Your task to perform on an android device: Open Google Chrome and open the bookmarks view Image 0: 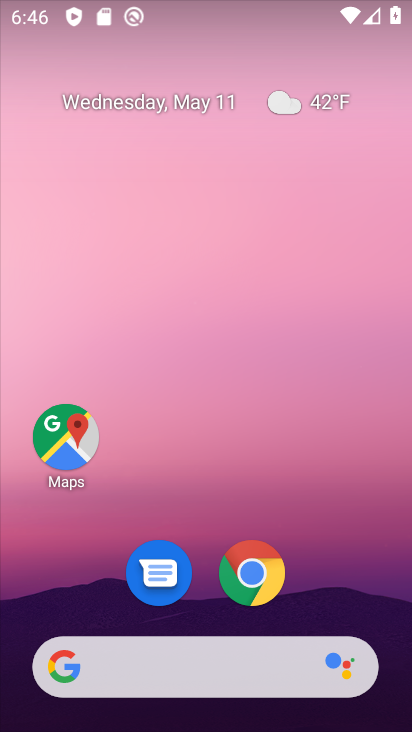
Step 0: drag from (314, 603) to (254, 282)
Your task to perform on an android device: Open Google Chrome and open the bookmarks view Image 1: 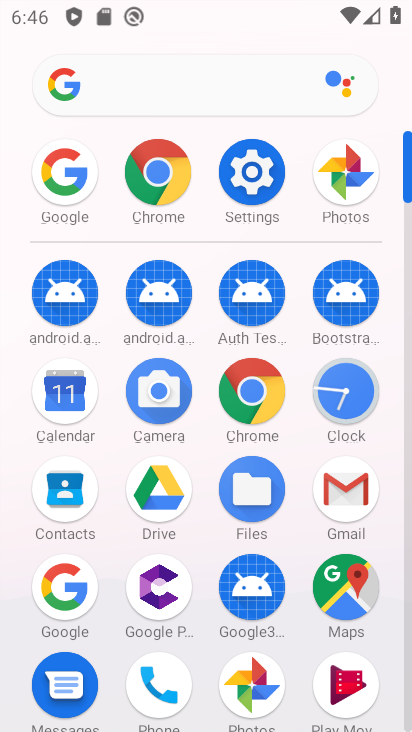
Step 1: click (251, 436)
Your task to perform on an android device: Open Google Chrome and open the bookmarks view Image 2: 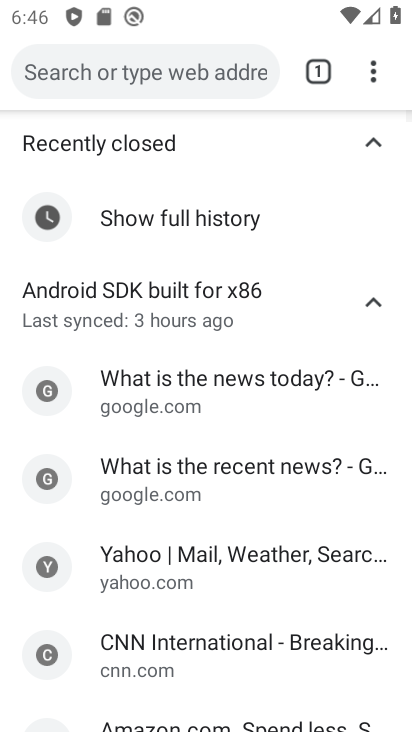
Step 2: click (366, 73)
Your task to perform on an android device: Open Google Chrome and open the bookmarks view Image 3: 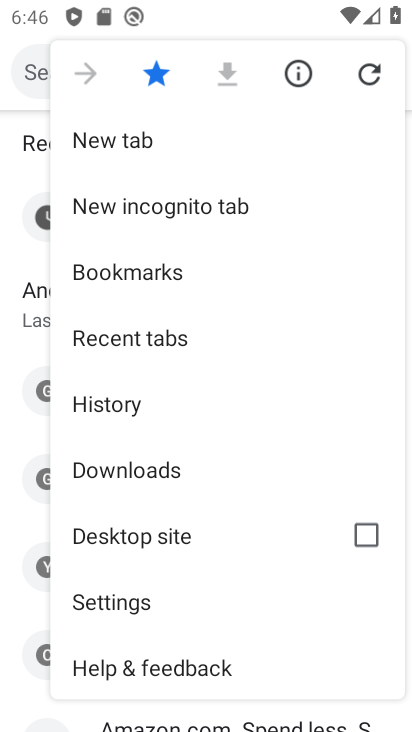
Step 3: click (143, 413)
Your task to perform on an android device: Open Google Chrome and open the bookmarks view Image 4: 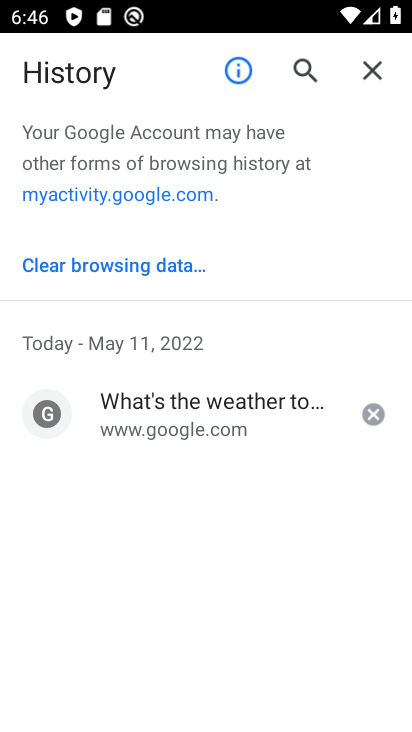
Step 4: press back button
Your task to perform on an android device: Open Google Chrome and open the bookmarks view Image 5: 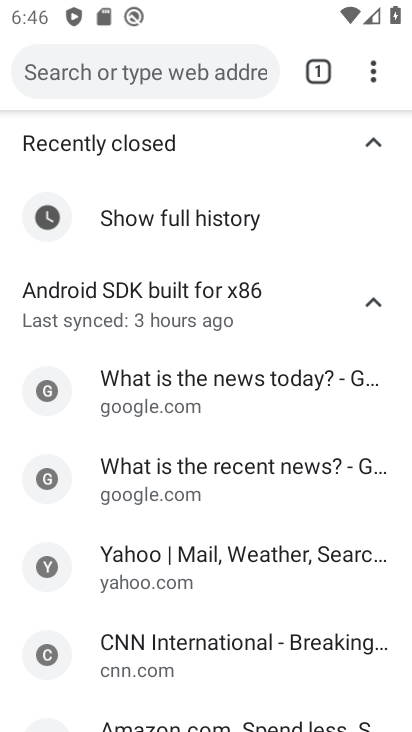
Step 5: click (368, 78)
Your task to perform on an android device: Open Google Chrome and open the bookmarks view Image 6: 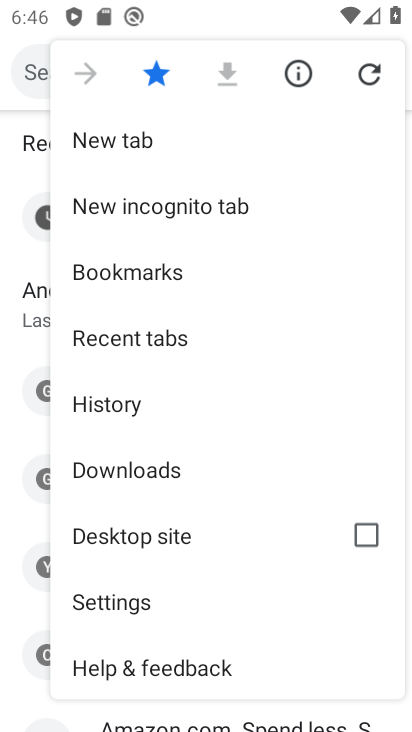
Step 6: click (145, 279)
Your task to perform on an android device: Open Google Chrome and open the bookmarks view Image 7: 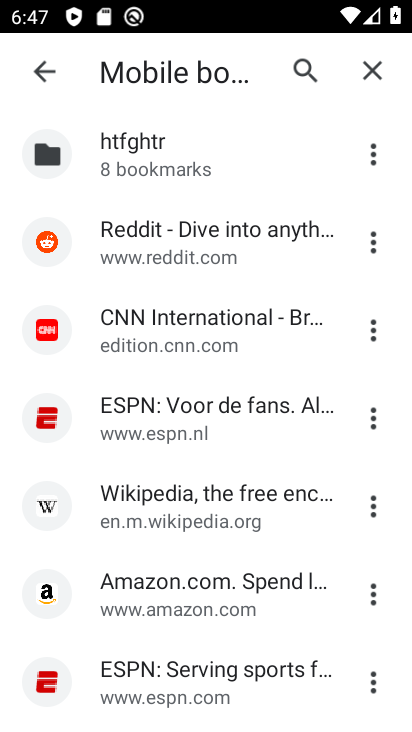
Step 7: task complete